Your task to perform on an android device: See recent photos Image 0: 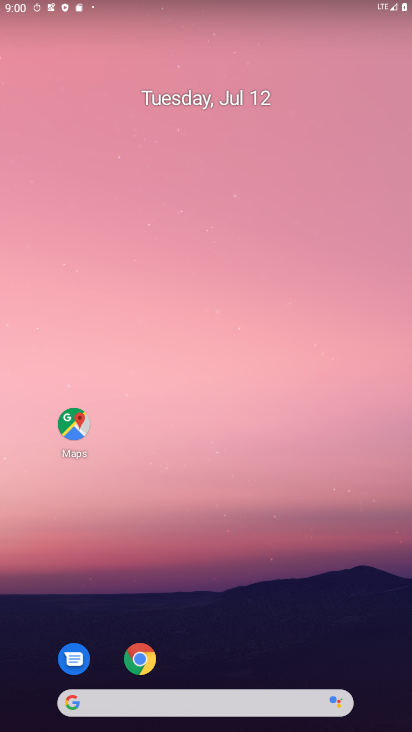
Step 0: drag from (387, 672) to (270, 140)
Your task to perform on an android device: See recent photos Image 1: 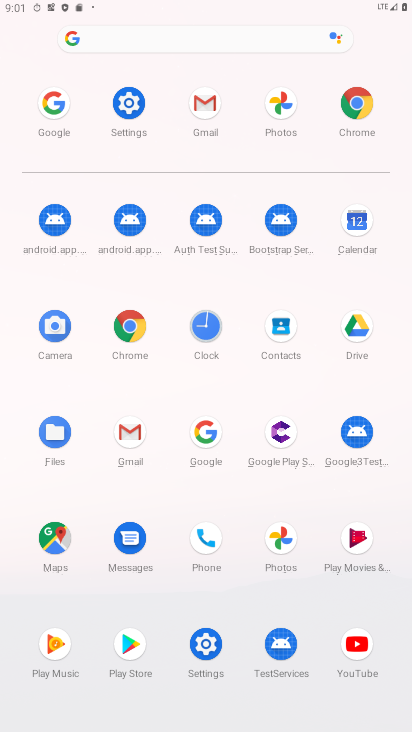
Step 1: click (291, 534)
Your task to perform on an android device: See recent photos Image 2: 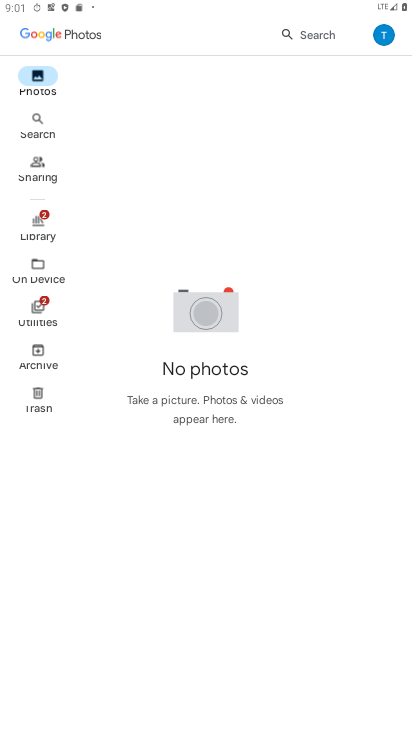
Step 2: task complete